Your task to perform on an android device: Toggle the flashlight Image 0: 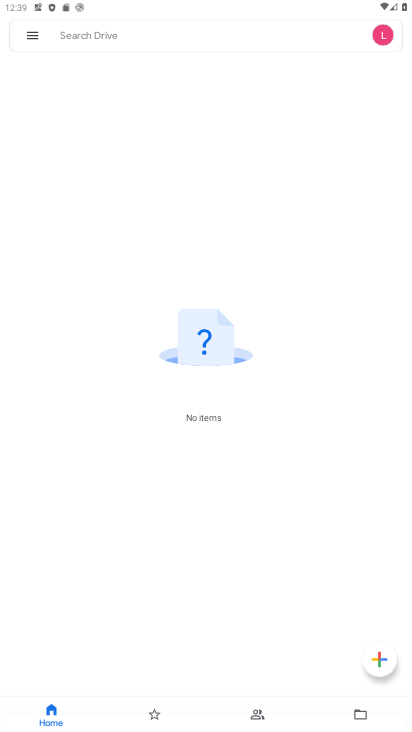
Step 0: press home button
Your task to perform on an android device: Toggle the flashlight Image 1: 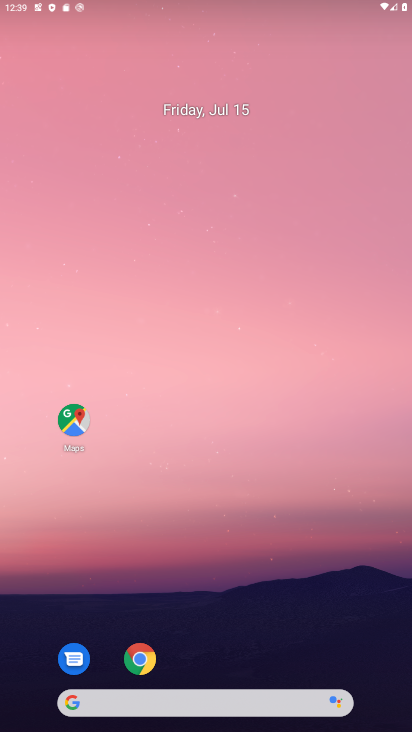
Step 1: drag from (200, 615) to (201, 48)
Your task to perform on an android device: Toggle the flashlight Image 2: 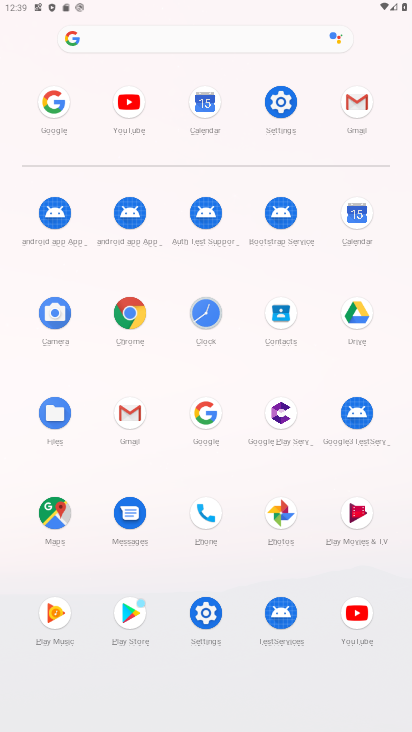
Step 2: click (260, 84)
Your task to perform on an android device: Toggle the flashlight Image 3: 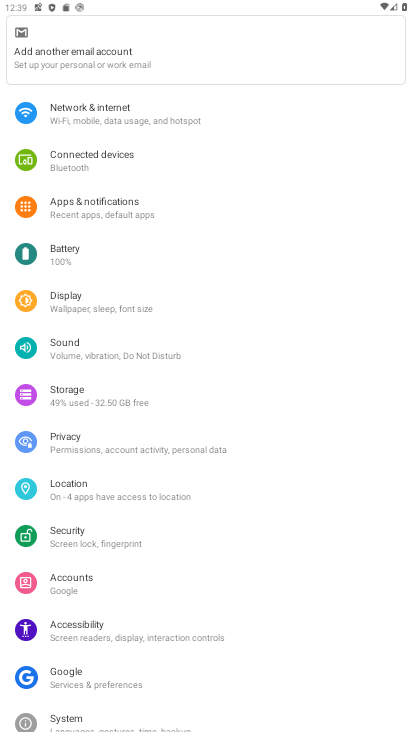
Step 3: task complete